Your task to perform on an android device: Open Reddit.com Image 0: 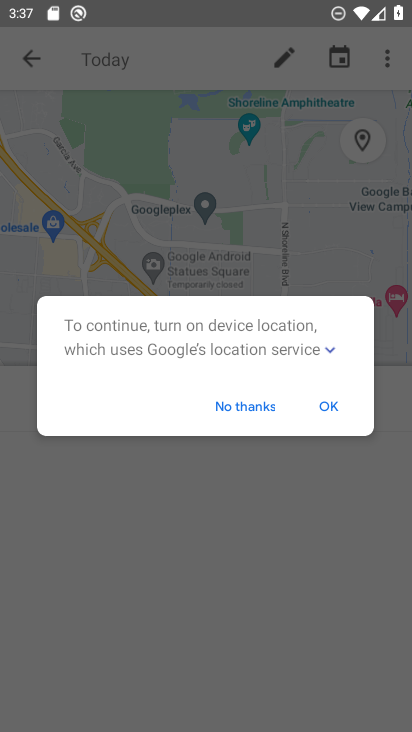
Step 0: press back button
Your task to perform on an android device: Open Reddit.com Image 1: 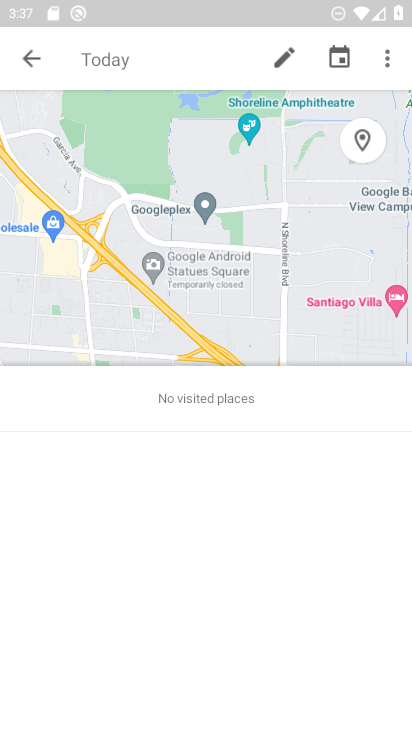
Step 1: press home button
Your task to perform on an android device: Open Reddit.com Image 2: 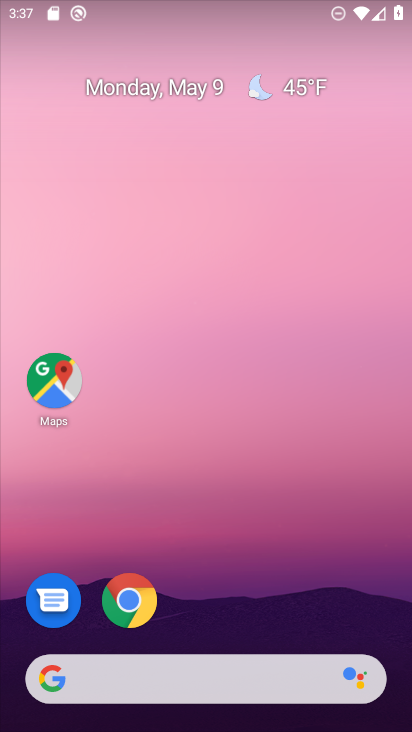
Step 2: drag from (249, 593) to (207, 0)
Your task to perform on an android device: Open Reddit.com Image 3: 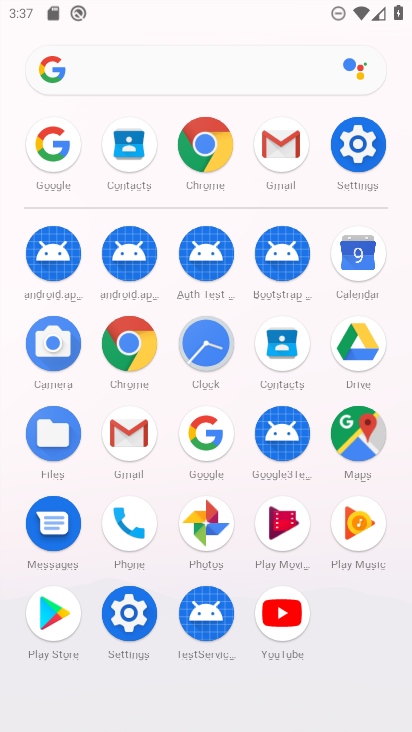
Step 3: click (206, 141)
Your task to perform on an android device: Open Reddit.com Image 4: 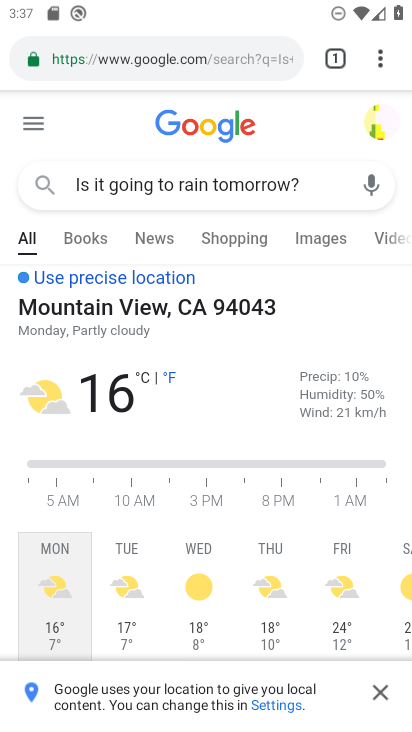
Step 4: click (144, 53)
Your task to perform on an android device: Open Reddit.com Image 5: 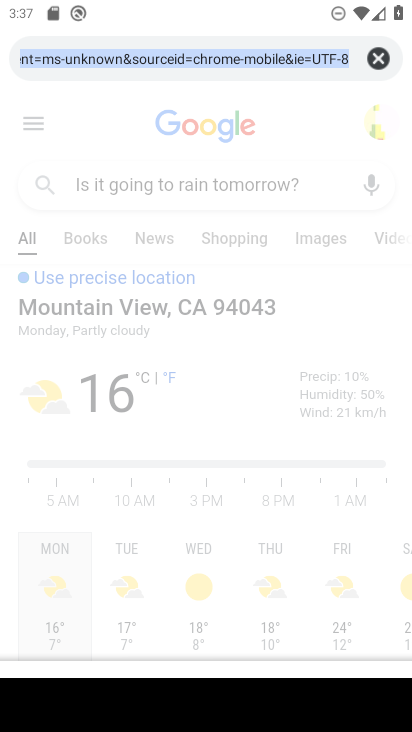
Step 5: click (380, 63)
Your task to perform on an android device: Open Reddit.com Image 6: 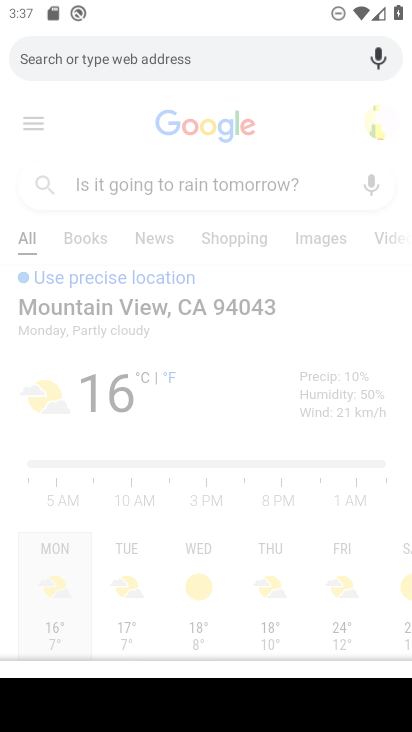
Step 6: type "Reddit.com"
Your task to perform on an android device: Open Reddit.com Image 7: 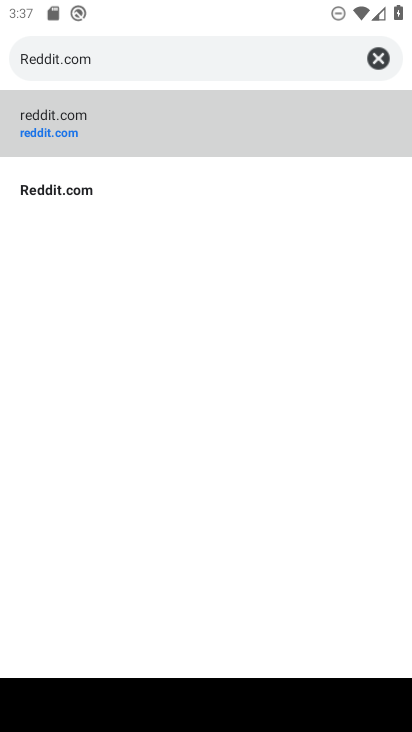
Step 7: click (170, 152)
Your task to perform on an android device: Open Reddit.com Image 8: 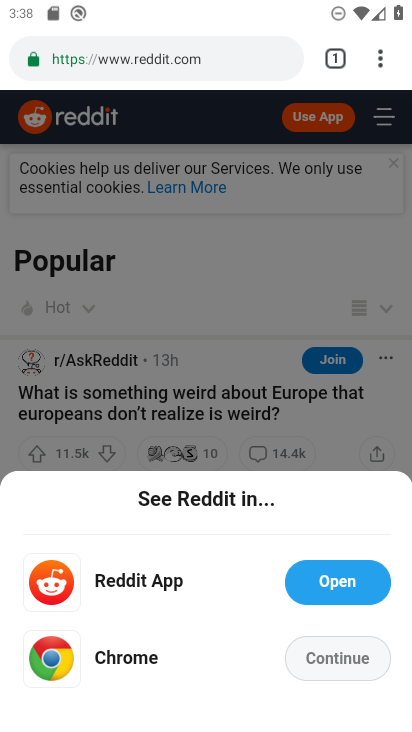
Step 8: task complete